Your task to perform on an android device: Open display settings Image 0: 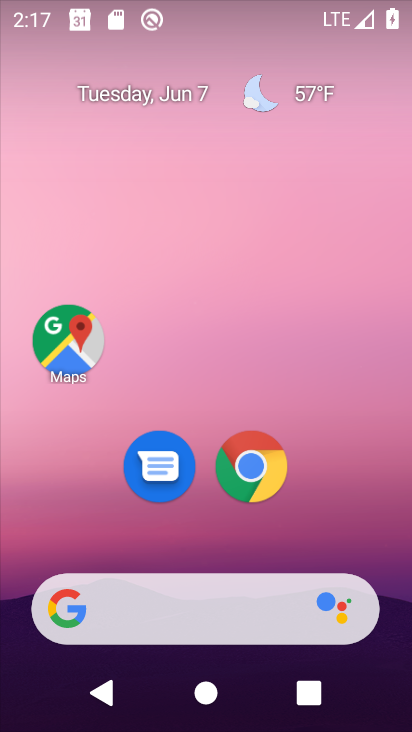
Step 0: drag from (231, 454) to (302, 7)
Your task to perform on an android device: Open display settings Image 1: 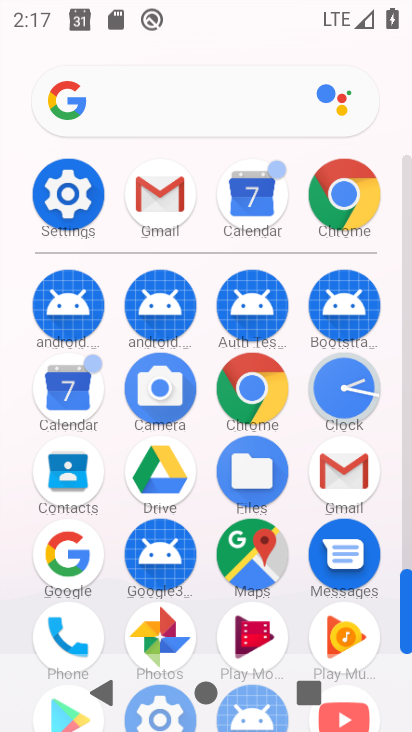
Step 1: click (75, 196)
Your task to perform on an android device: Open display settings Image 2: 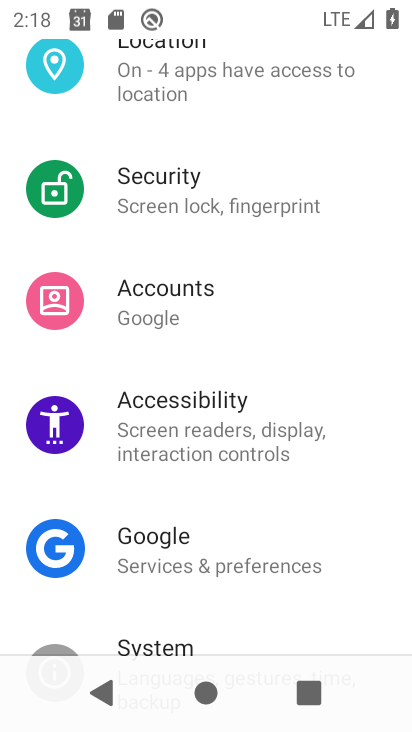
Step 2: drag from (280, 569) to (266, 89)
Your task to perform on an android device: Open display settings Image 3: 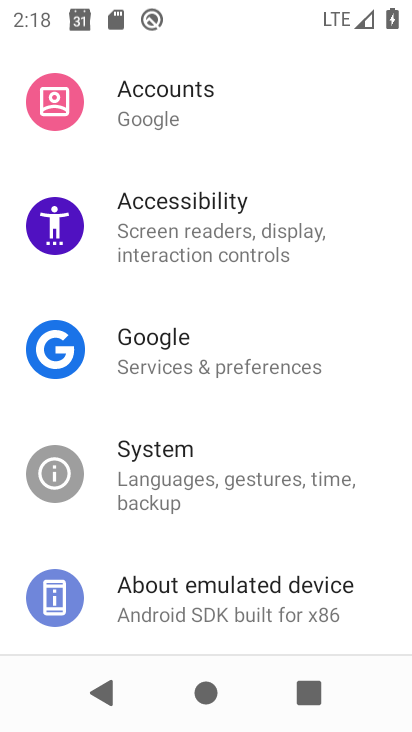
Step 3: drag from (174, 164) to (179, 691)
Your task to perform on an android device: Open display settings Image 4: 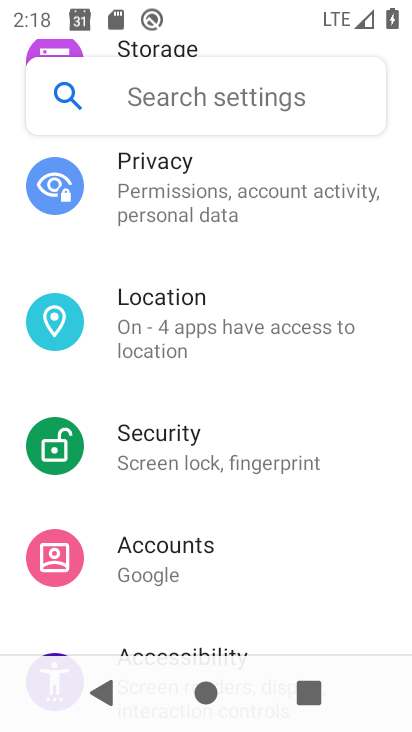
Step 4: drag from (191, 217) to (171, 697)
Your task to perform on an android device: Open display settings Image 5: 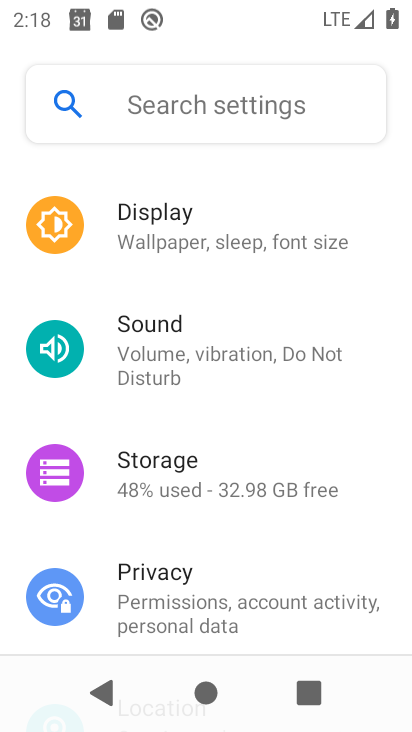
Step 5: click (172, 219)
Your task to perform on an android device: Open display settings Image 6: 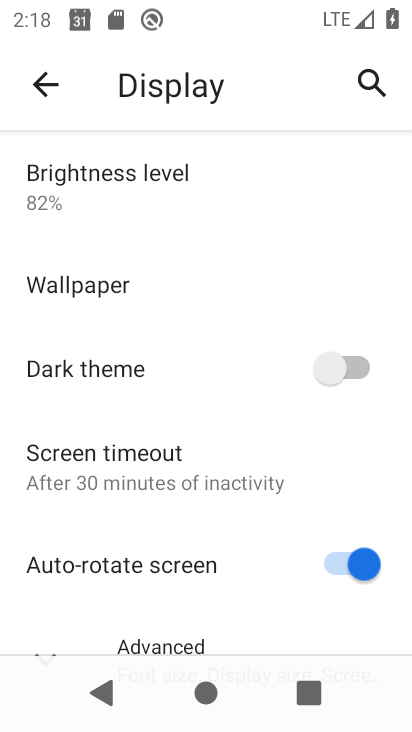
Step 6: task complete